Your task to perform on an android device: Open wifi settings Image 0: 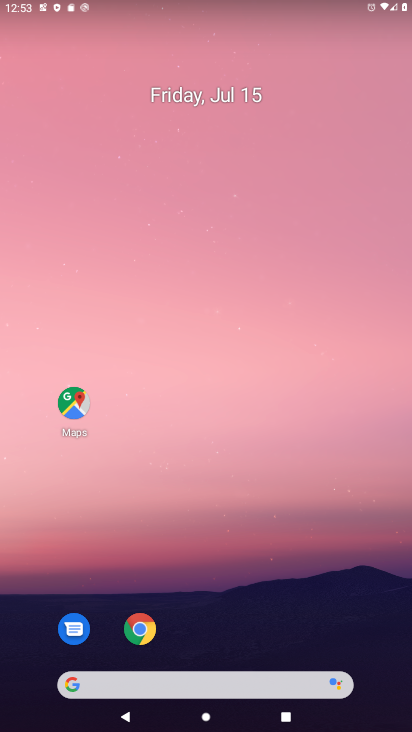
Step 0: press home button
Your task to perform on an android device: Open wifi settings Image 1: 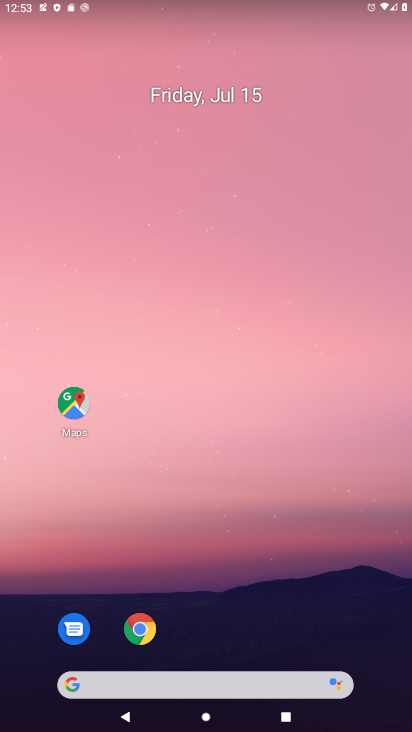
Step 1: drag from (266, 568) to (285, 5)
Your task to perform on an android device: Open wifi settings Image 2: 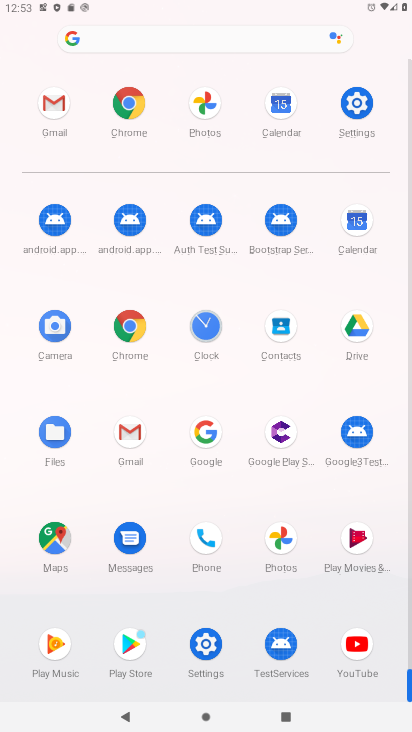
Step 2: click (364, 108)
Your task to perform on an android device: Open wifi settings Image 3: 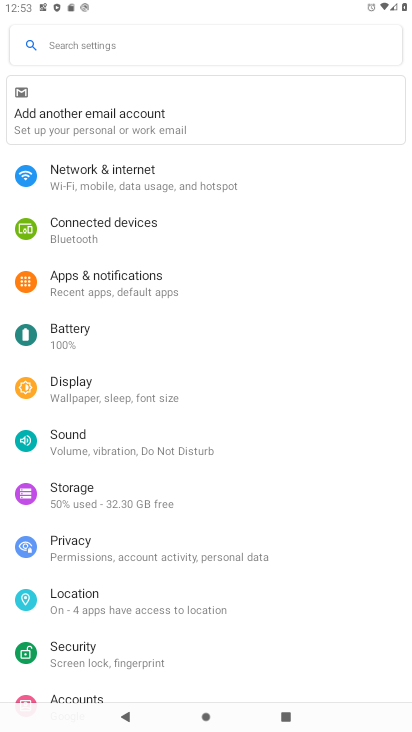
Step 3: click (117, 173)
Your task to perform on an android device: Open wifi settings Image 4: 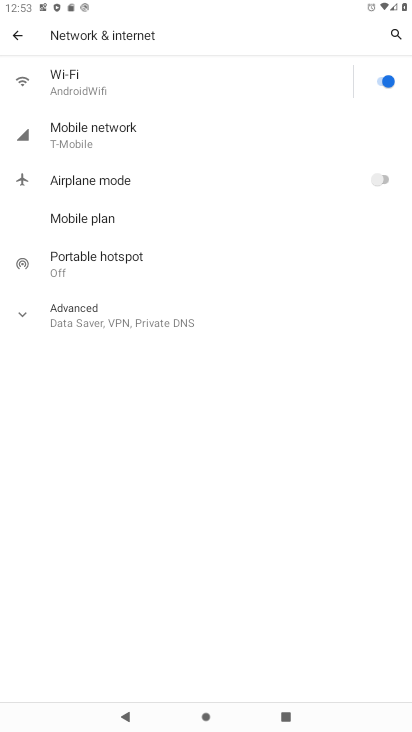
Step 4: click (105, 92)
Your task to perform on an android device: Open wifi settings Image 5: 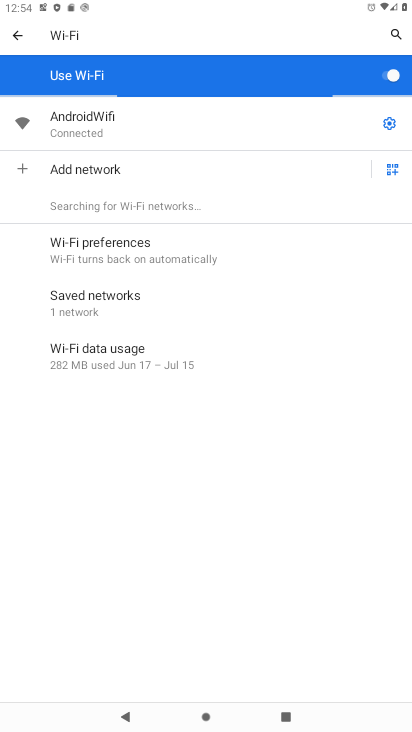
Step 5: task complete